Your task to perform on an android device: Go to Wikipedia Image 0: 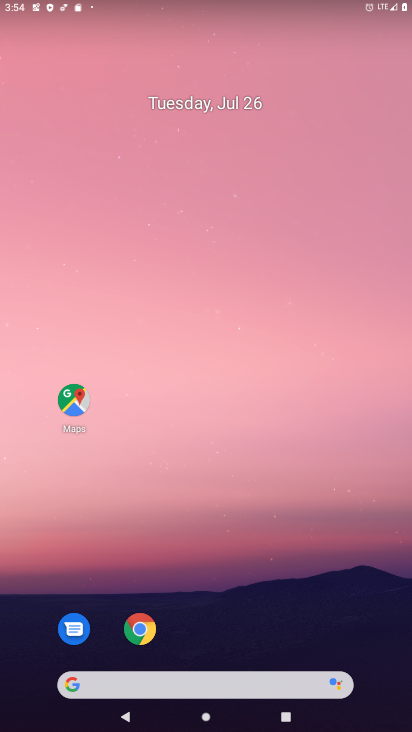
Step 0: drag from (228, 725) to (242, 192)
Your task to perform on an android device: Go to Wikipedia Image 1: 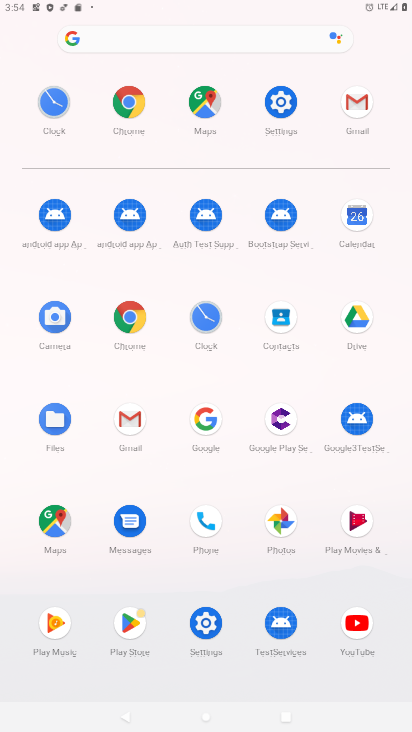
Step 1: click (131, 99)
Your task to perform on an android device: Go to Wikipedia Image 2: 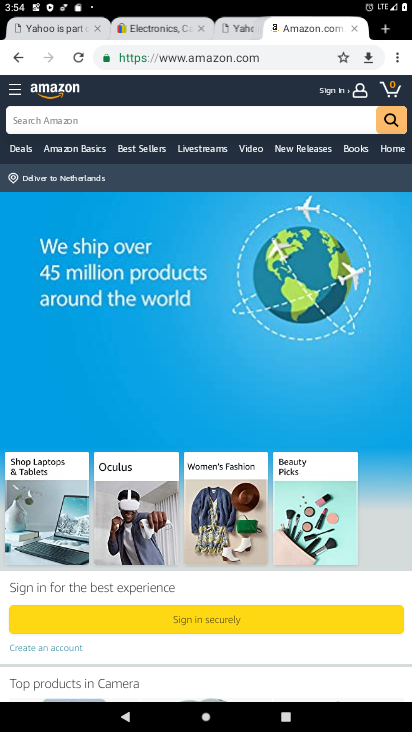
Step 2: click (400, 55)
Your task to perform on an android device: Go to Wikipedia Image 3: 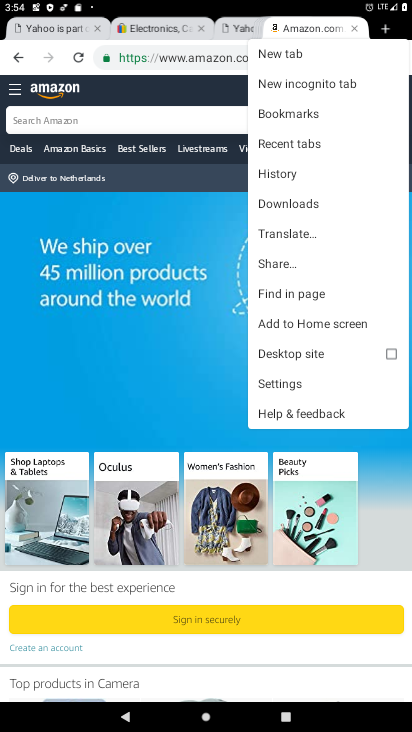
Step 3: click (279, 57)
Your task to perform on an android device: Go to Wikipedia Image 4: 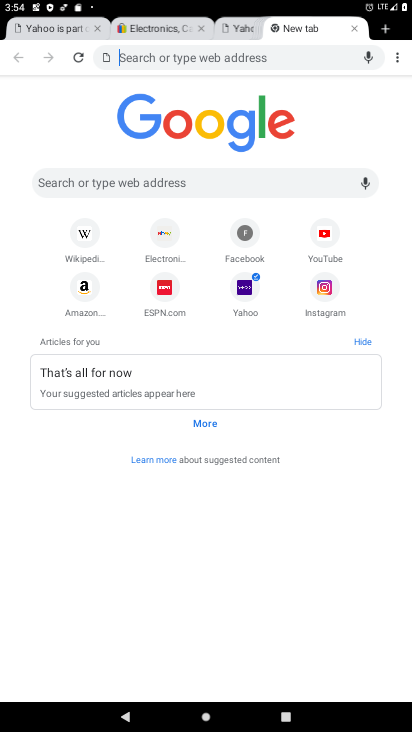
Step 4: click (81, 241)
Your task to perform on an android device: Go to Wikipedia Image 5: 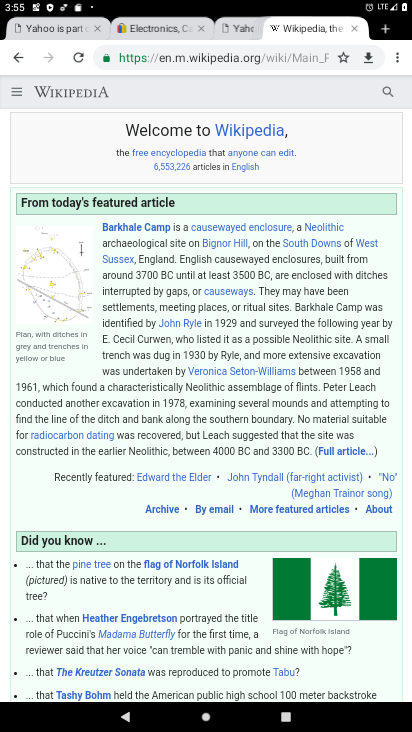
Step 5: task complete